Your task to perform on an android device: Do I have any events today? Image 0: 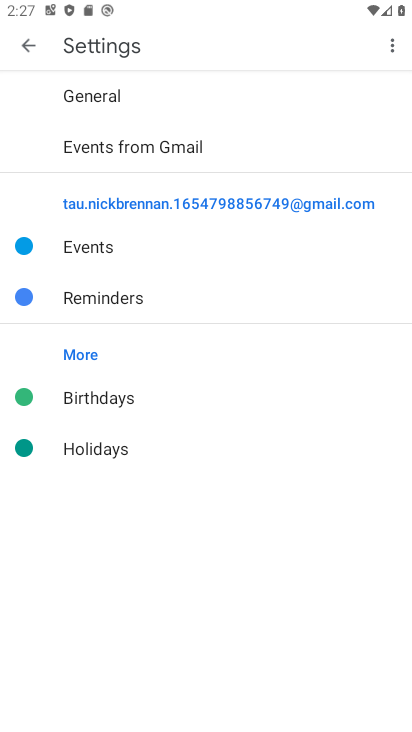
Step 0: press home button
Your task to perform on an android device: Do I have any events today? Image 1: 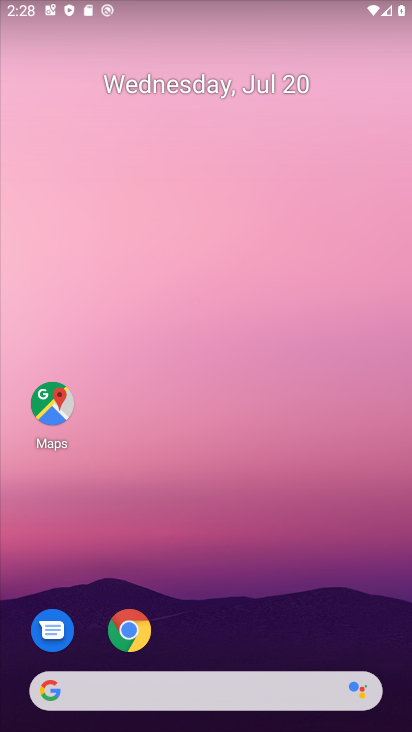
Step 1: drag from (351, 610) to (353, 116)
Your task to perform on an android device: Do I have any events today? Image 2: 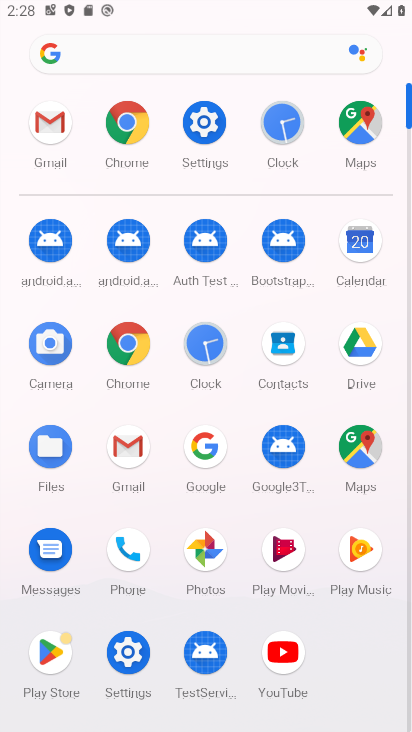
Step 2: click (361, 252)
Your task to perform on an android device: Do I have any events today? Image 3: 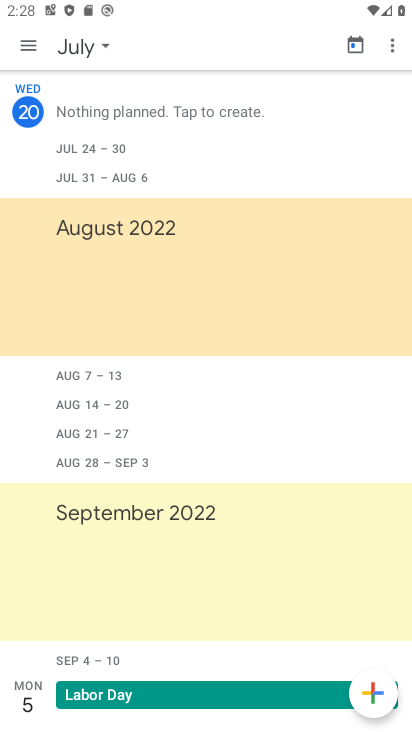
Step 3: task complete